Your task to perform on an android device: What's the weather? Image 0: 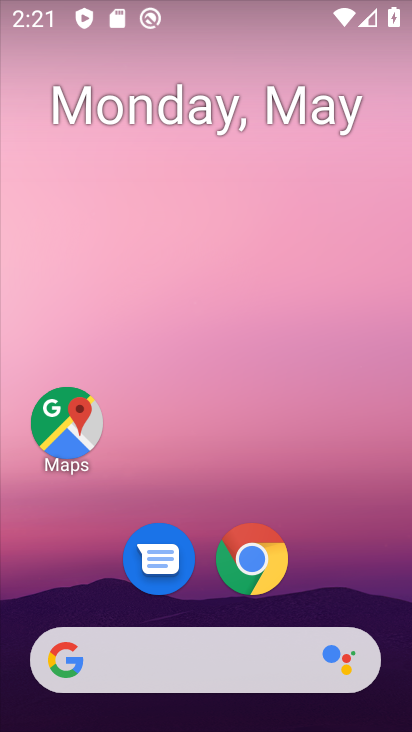
Step 0: drag from (334, 584) to (292, 119)
Your task to perform on an android device: What's the weather? Image 1: 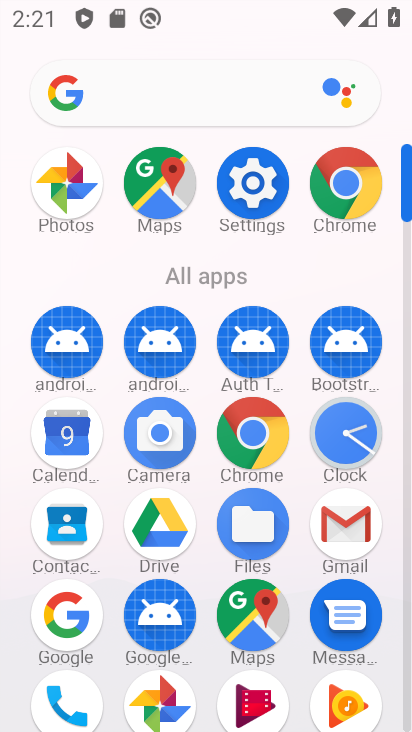
Step 1: click (84, 607)
Your task to perform on an android device: What's the weather? Image 2: 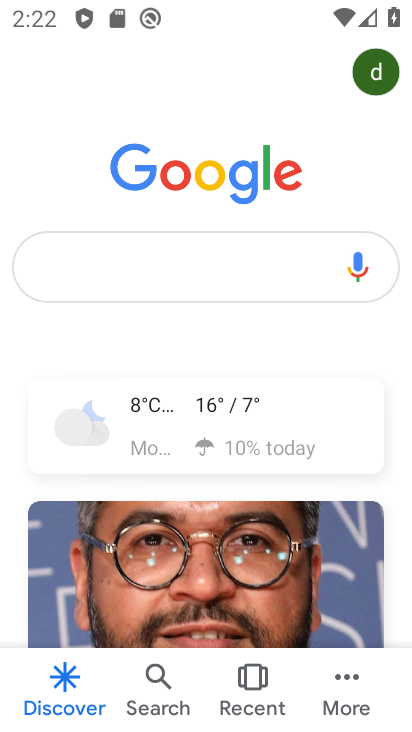
Step 2: click (122, 393)
Your task to perform on an android device: What's the weather? Image 3: 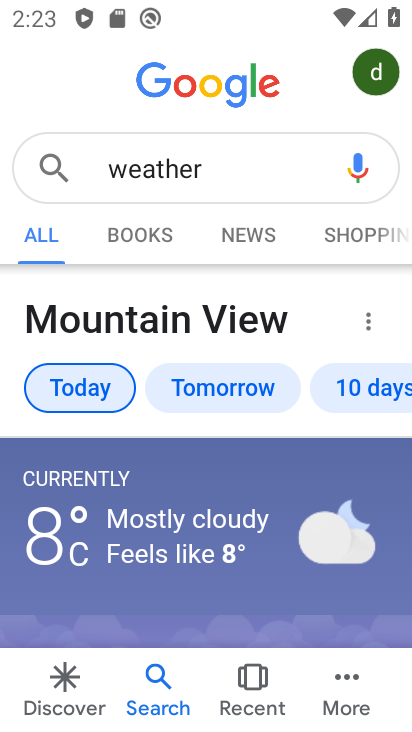
Step 3: task complete